Your task to perform on an android device: allow notifications from all sites in the chrome app Image 0: 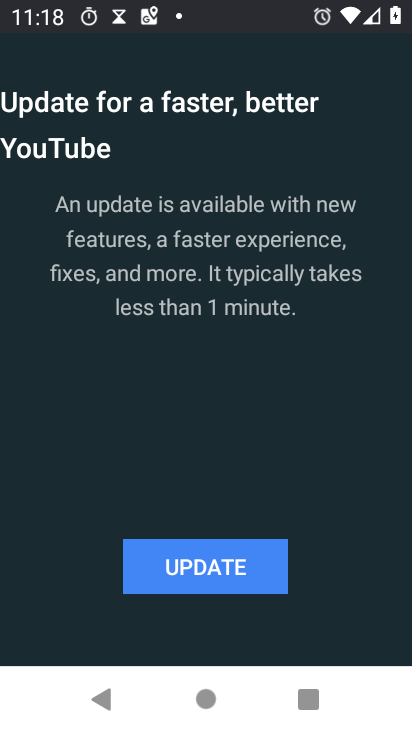
Step 0: press home button
Your task to perform on an android device: allow notifications from all sites in the chrome app Image 1: 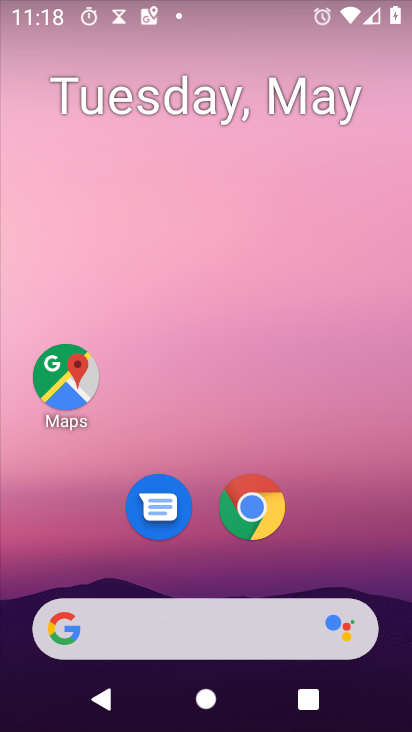
Step 1: click (254, 505)
Your task to perform on an android device: allow notifications from all sites in the chrome app Image 2: 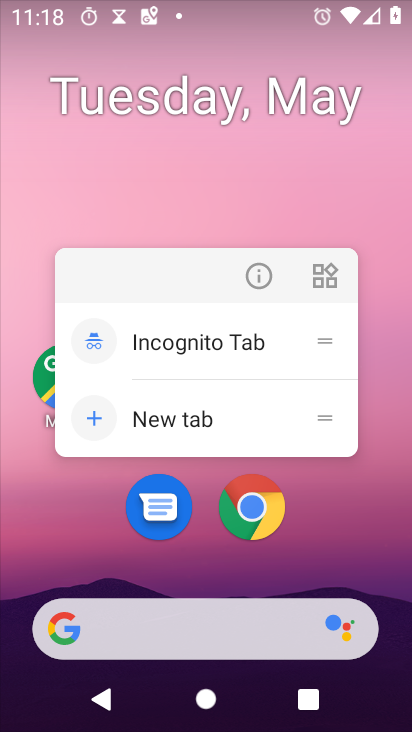
Step 2: click (247, 502)
Your task to perform on an android device: allow notifications from all sites in the chrome app Image 3: 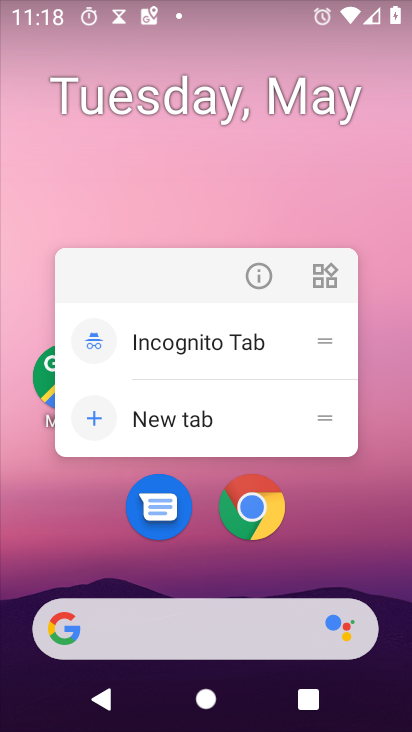
Step 3: click (241, 487)
Your task to perform on an android device: allow notifications from all sites in the chrome app Image 4: 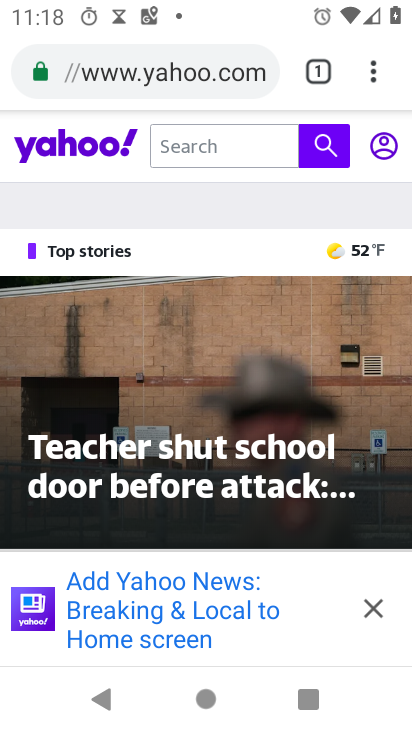
Step 4: click (366, 77)
Your task to perform on an android device: allow notifications from all sites in the chrome app Image 5: 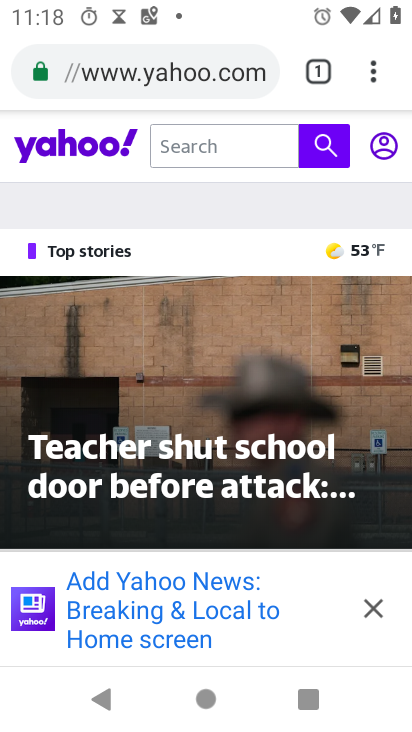
Step 5: click (382, 67)
Your task to perform on an android device: allow notifications from all sites in the chrome app Image 6: 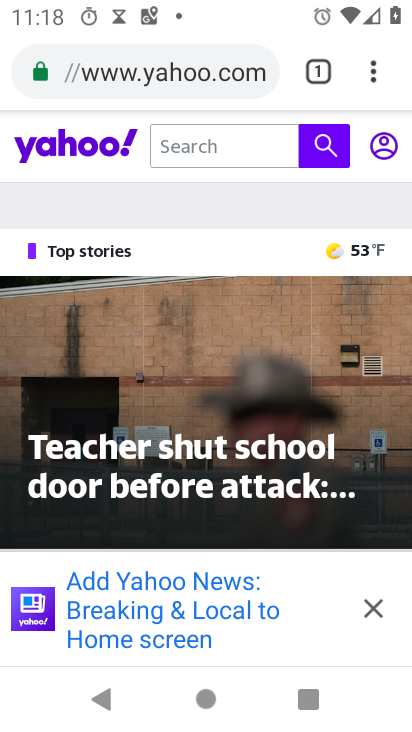
Step 6: click (371, 62)
Your task to perform on an android device: allow notifications from all sites in the chrome app Image 7: 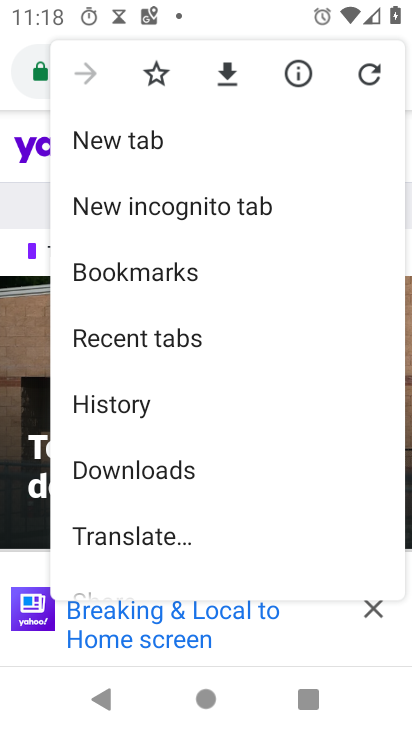
Step 7: drag from (101, 531) to (348, 83)
Your task to perform on an android device: allow notifications from all sites in the chrome app Image 8: 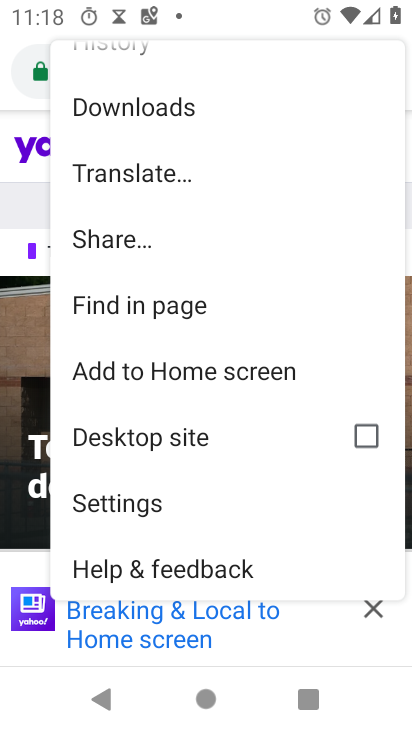
Step 8: click (138, 501)
Your task to perform on an android device: allow notifications from all sites in the chrome app Image 9: 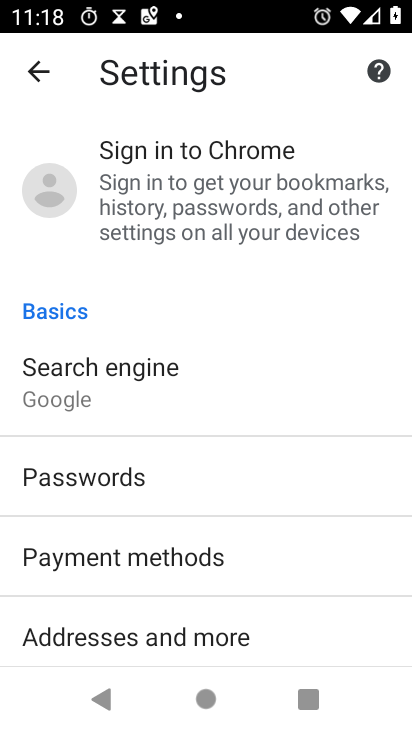
Step 9: task complete